Your task to perform on an android device: Open sound settings Image 0: 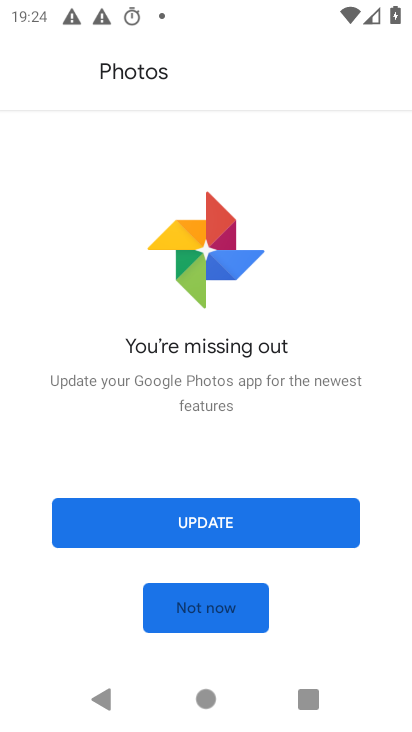
Step 0: press back button
Your task to perform on an android device: Open sound settings Image 1: 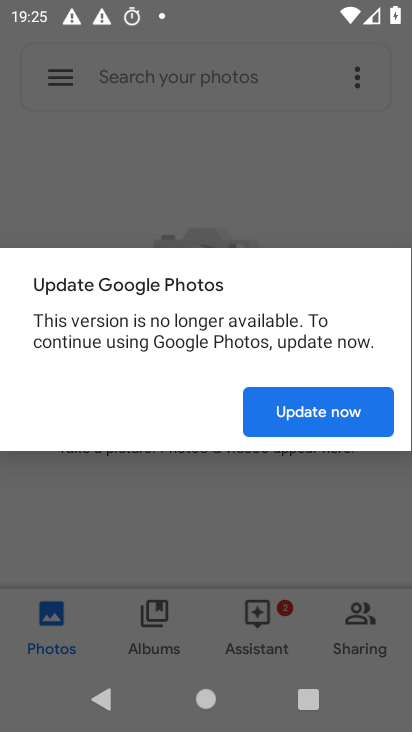
Step 1: press home button
Your task to perform on an android device: Open sound settings Image 2: 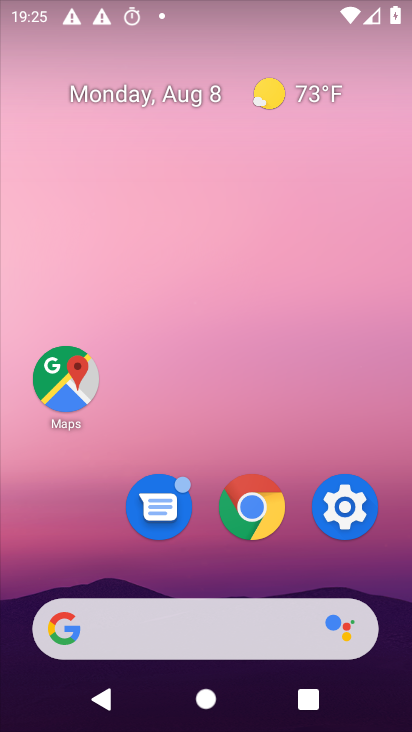
Step 2: click (334, 492)
Your task to perform on an android device: Open sound settings Image 3: 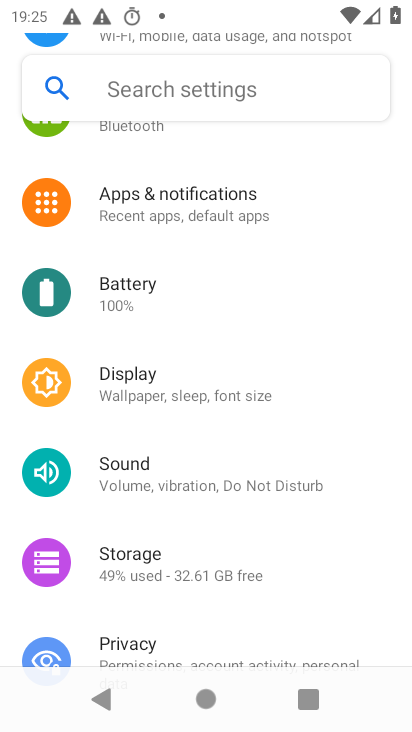
Step 3: click (185, 485)
Your task to perform on an android device: Open sound settings Image 4: 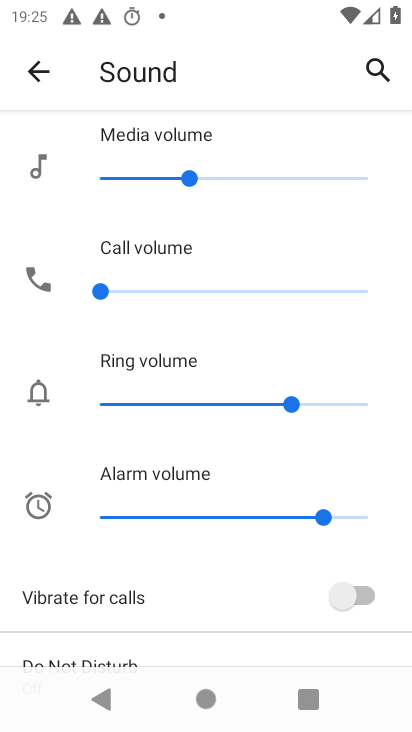
Step 4: task complete